Your task to perform on an android device: What's the weather today? Image 0: 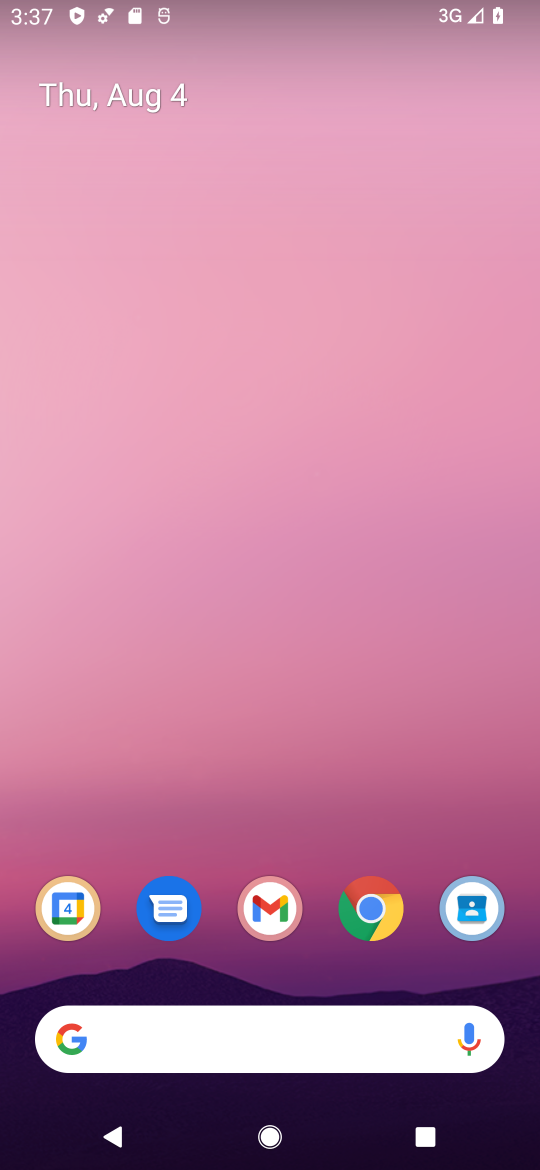
Step 0: click (341, 1041)
Your task to perform on an android device: What's the weather today? Image 1: 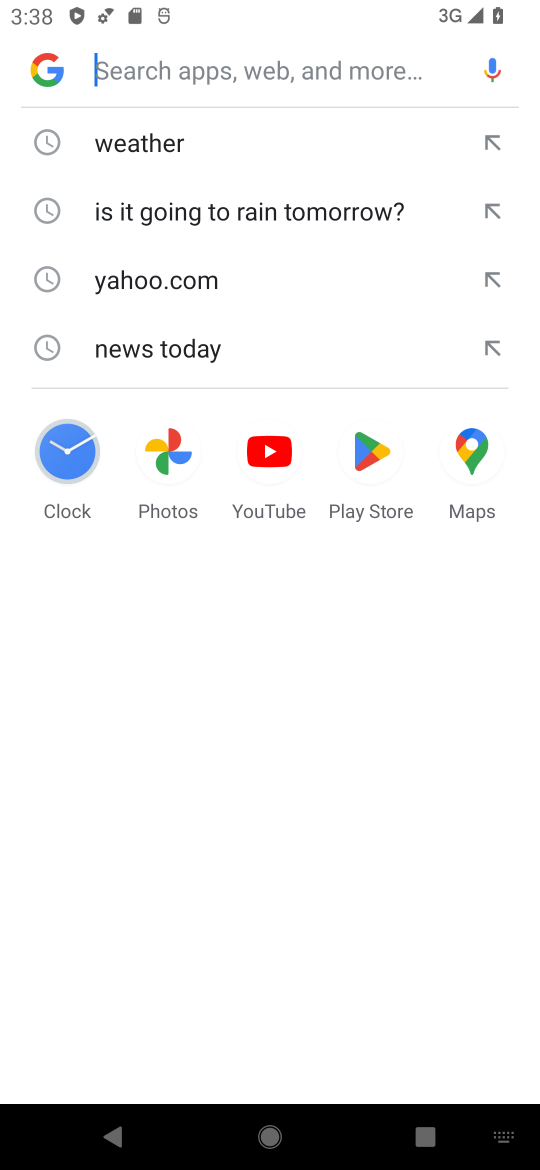
Step 1: type "what's the weather today?"
Your task to perform on an android device: What's the weather today? Image 2: 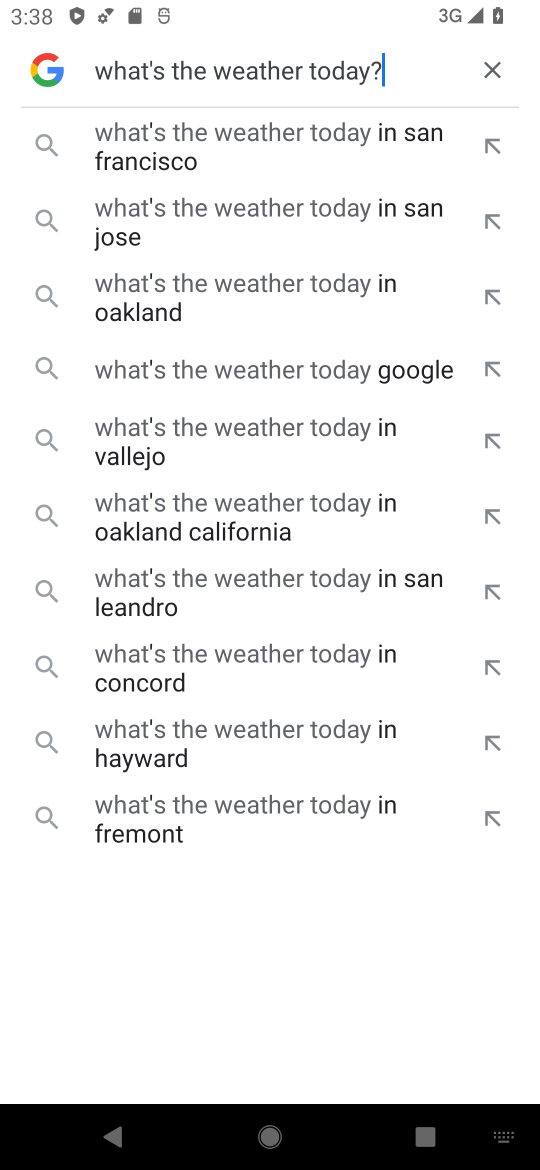
Step 2: click (404, 370)
Your task to perform on an android device: What's the weather today? Image 3: 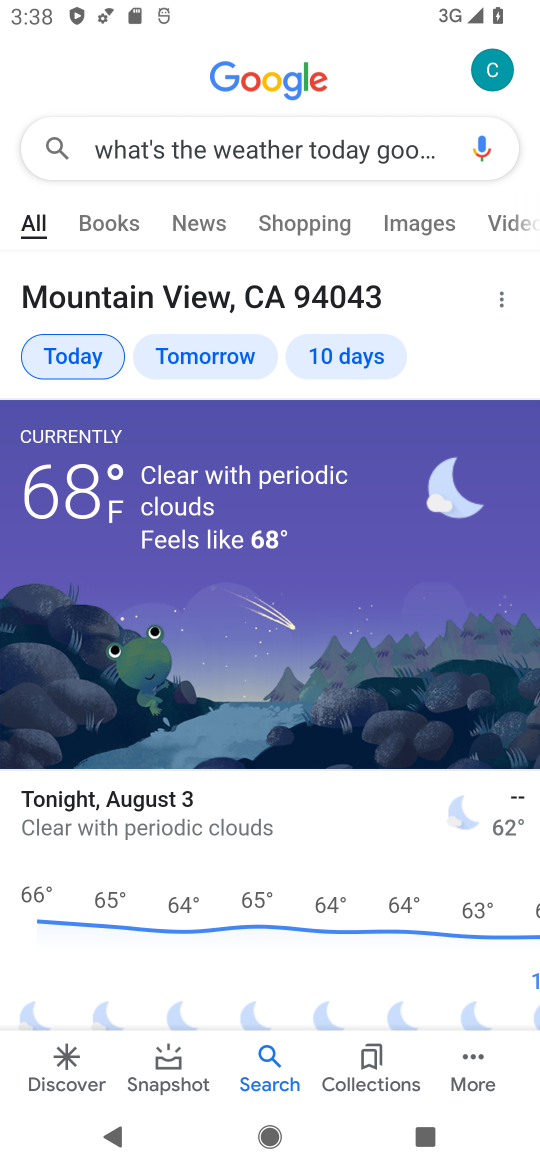
Step 3: task complete